Your task to perform on an android device: Empty the shopping cart on amazon. Search for "logitech g502" on amazon, select the first entry, add it to the cart, then select checkout. Image 0: 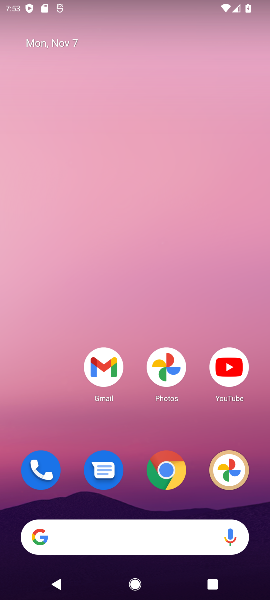
Step 0: click (149, 477)
Your task to perform on an android device: Empty the shopping cart on amazon. Search for "logitech g502" on amazon, select the first entry, add it to the cart, then select checkout. Image 1: 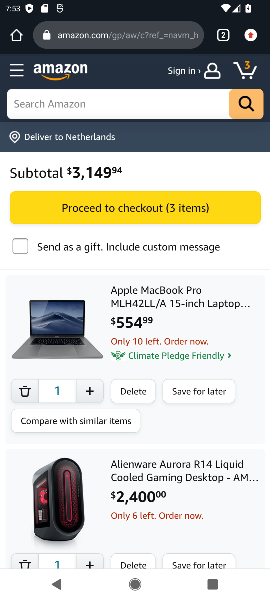
Step 1: click (141, 382)
Your task to perform on an android device: Empty the shopping cart on amazon. Search for "logitech g502" on amazon, select the first entry, add it to the cart, then select checkout. Image 2: 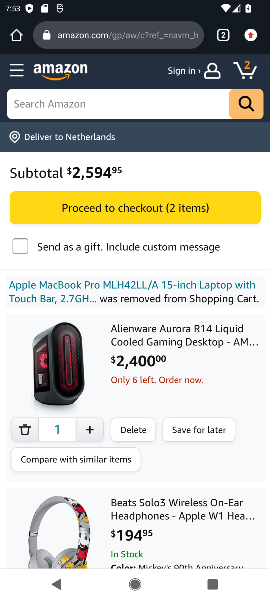
Step 2: click (133, 438)
Your task to perform on an android device: Empty the shopping cart on amazon. Search for "logitech g502" on amazon, select the first entry, add it to the cart, then select checkout. Image 3: 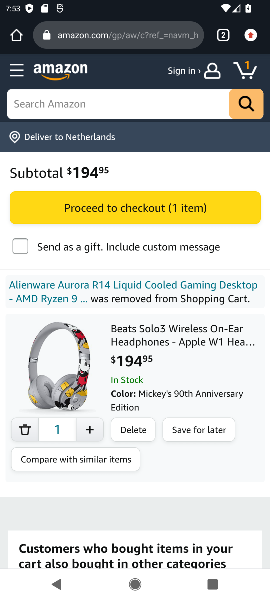
Step 3: click (141, 421)
Your task to perform on an android device: Empty the shopping cart on amazon. Search for "logitech g502" on amazon, select the first entry, add it to the cart, then select checkout. Image 4: 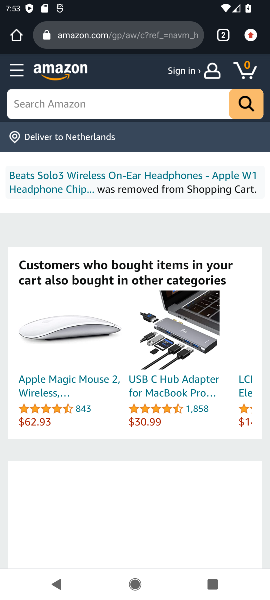
Step 4: click (88, 104)
Your task to perform on an android device: Empty the shopping cart on amazon. Search for "logitech g502" on amazon, select the first entry, add it to the cart, then select checkout. Image 5: 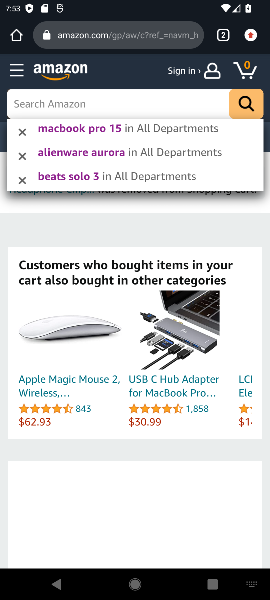
Step 5: type "logitech g502"
Your task to perform on an android device: Empty the shopping cart on amazon. Search for "logitech g502" on amazon, select the first entry, add it to the cart, then select checkout. Image 6: 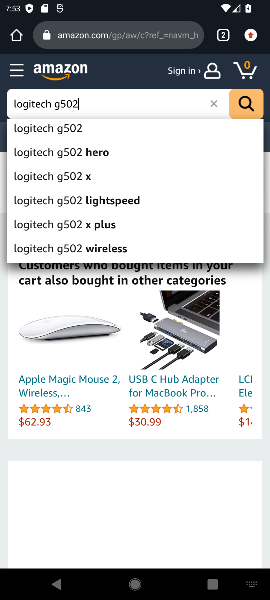
Step 6: click (255, 98)
Your task to perform on an android device: Empty the shopping cart on amazon. Search for "logitech g502" on amazon, select the first entry, add it to the cart, then select checkout. Image 7: 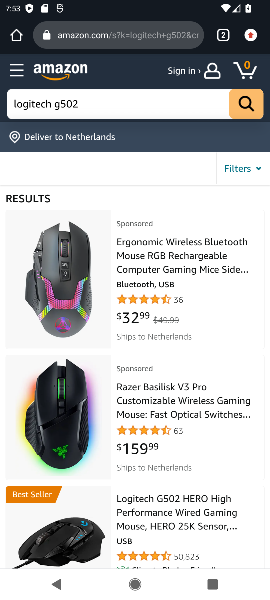
Step 7: click (184, 248)
Your task to perform on an android device: Empty the shopping cart on amazon. Search for "logitech g502" on amazon, select the first entry, add it to the cart, then select checkout. Image 8: 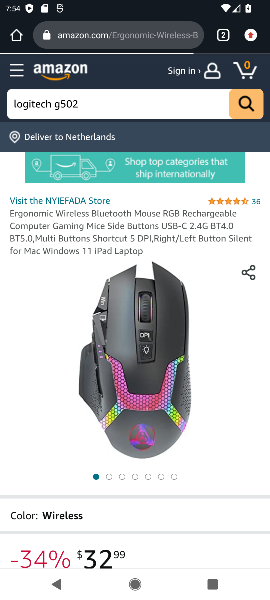
Step 8: drag from (110, 486) to (115, 44)
Your task to perform on an android device: Empty the shopping cart on amazon. Search for "logitech g502" on amazon, select the first entry, add it to the cart, then select checkout. Image 9: 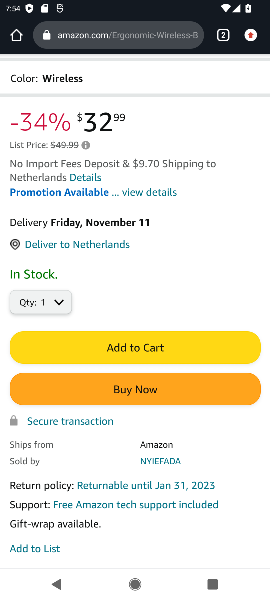
Step 9: click (86, 345)
Your task to perform on an android device: Empty the shopping cart on amazon. Search for "logitech g502" on amazon, select the first entry, add it to the cart, then select checkout. Image 10: 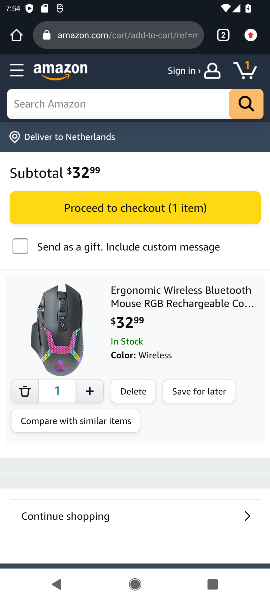
Step 10: click (96, 199)
Your task to perform on an android device: Empty the shopping cart on amazon. Search for "logitech g502" on amazon, select the first entry, add it to the cart, then select checkout. Image 11: 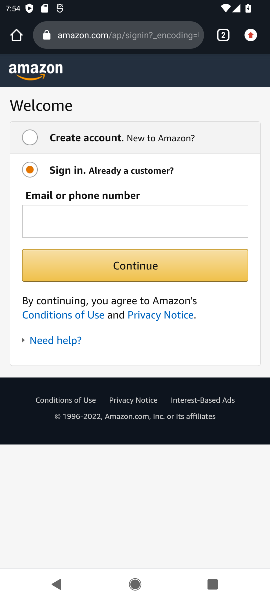
Step 11: task complete